Your task to perform on an android device: install app "Spotify: Music and Podcasts" Image 0: 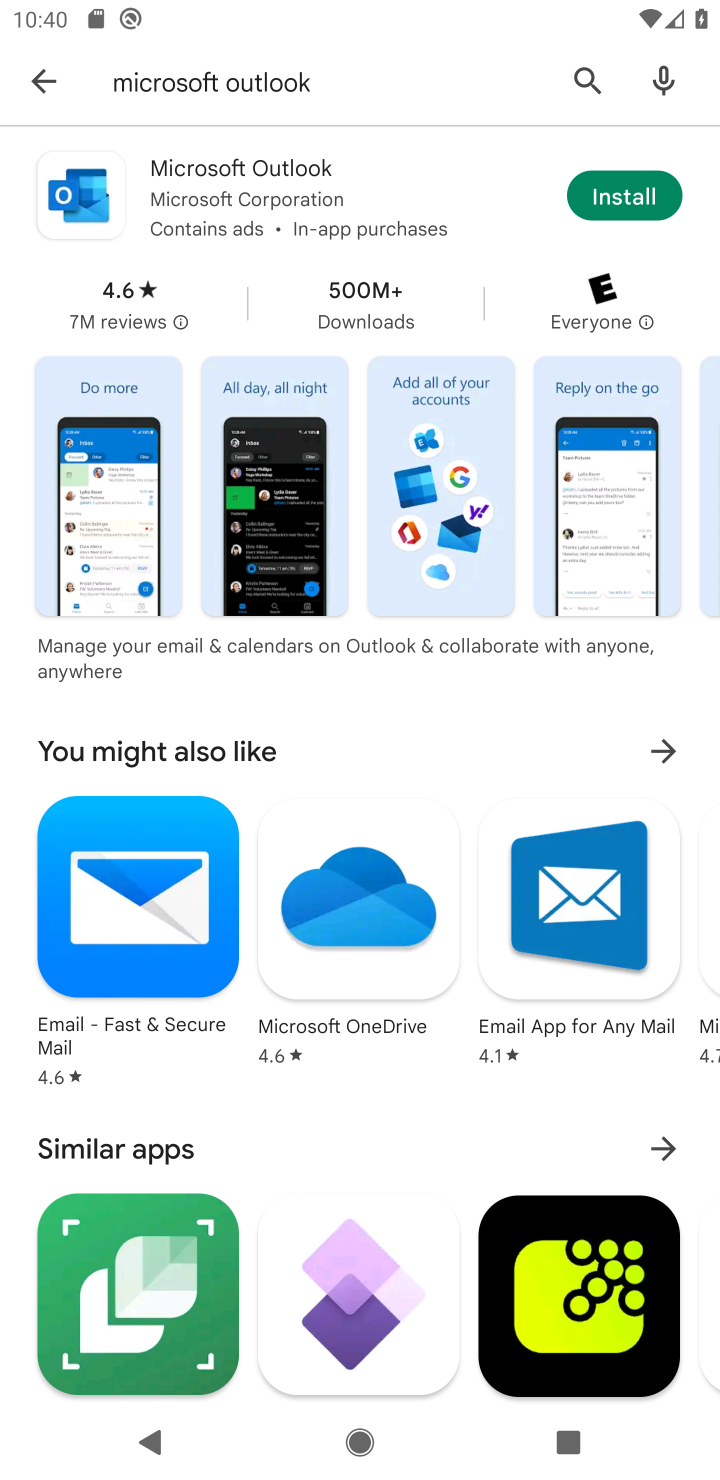
Step 0: press home button
Your task to perform on an android device: install app "Spotify: Music and Podcasts" Image 1: 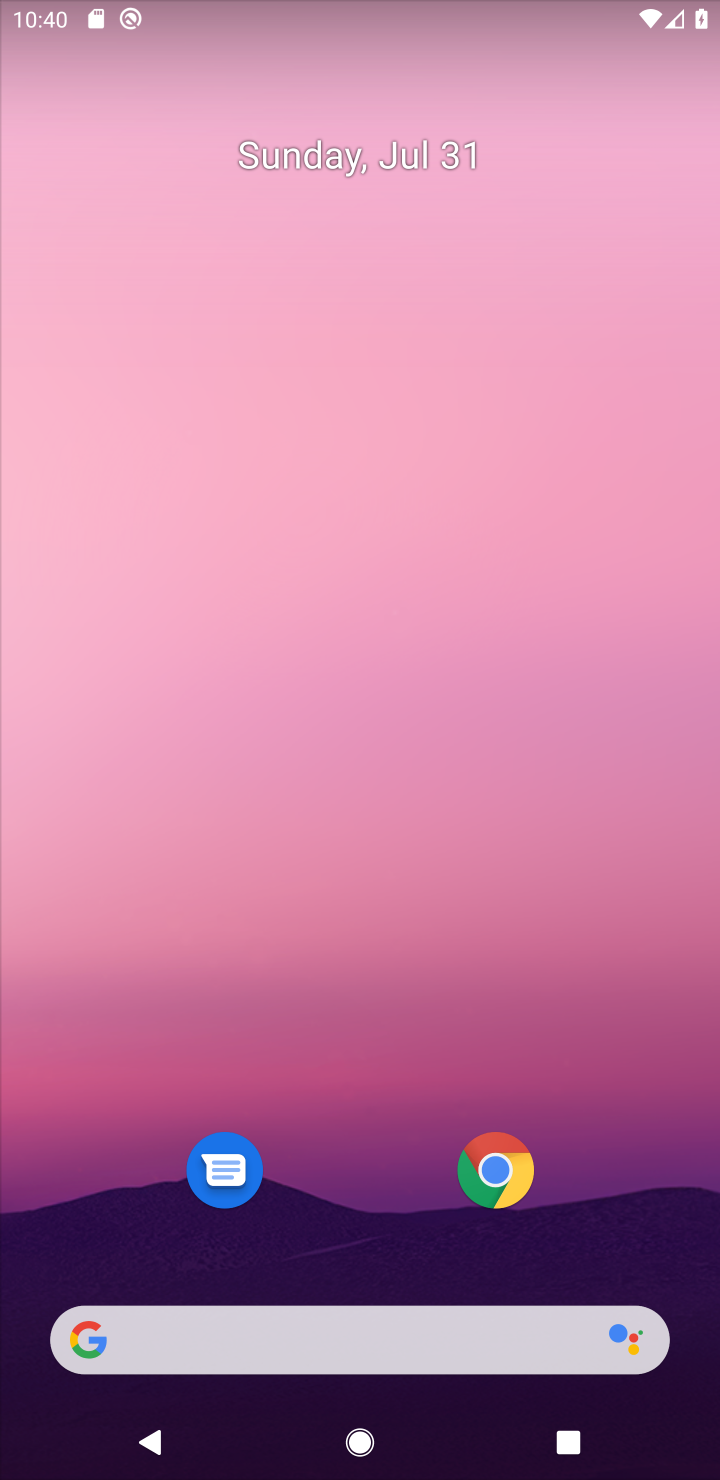
Step 1: drag from (679, 1224) to (379, 121)
Your task to perform on an android device: install app "Spotify: Music and Podcasts" Image 2: 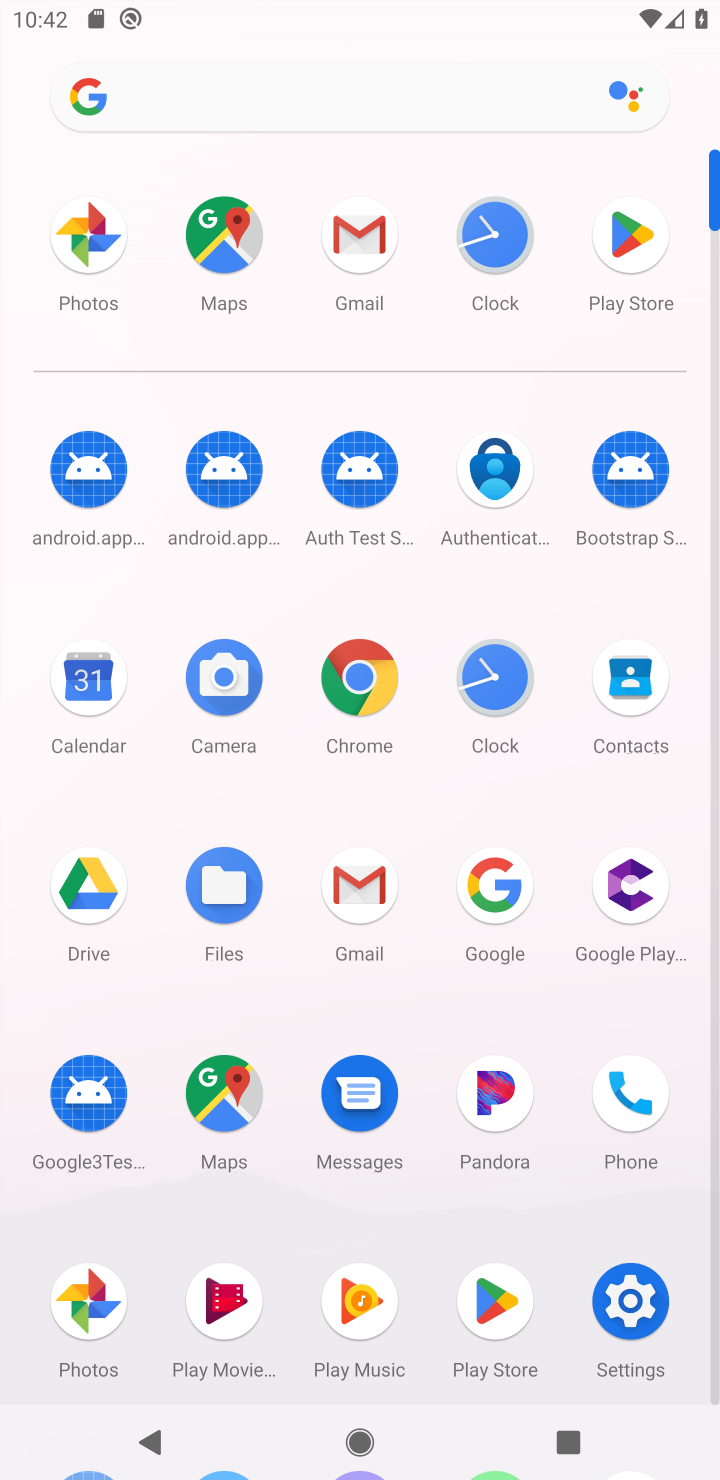
Step 2: click (623, 262)
Your task to perform on an android device: install app "Spotify: Music and Podcasts" Image 3: 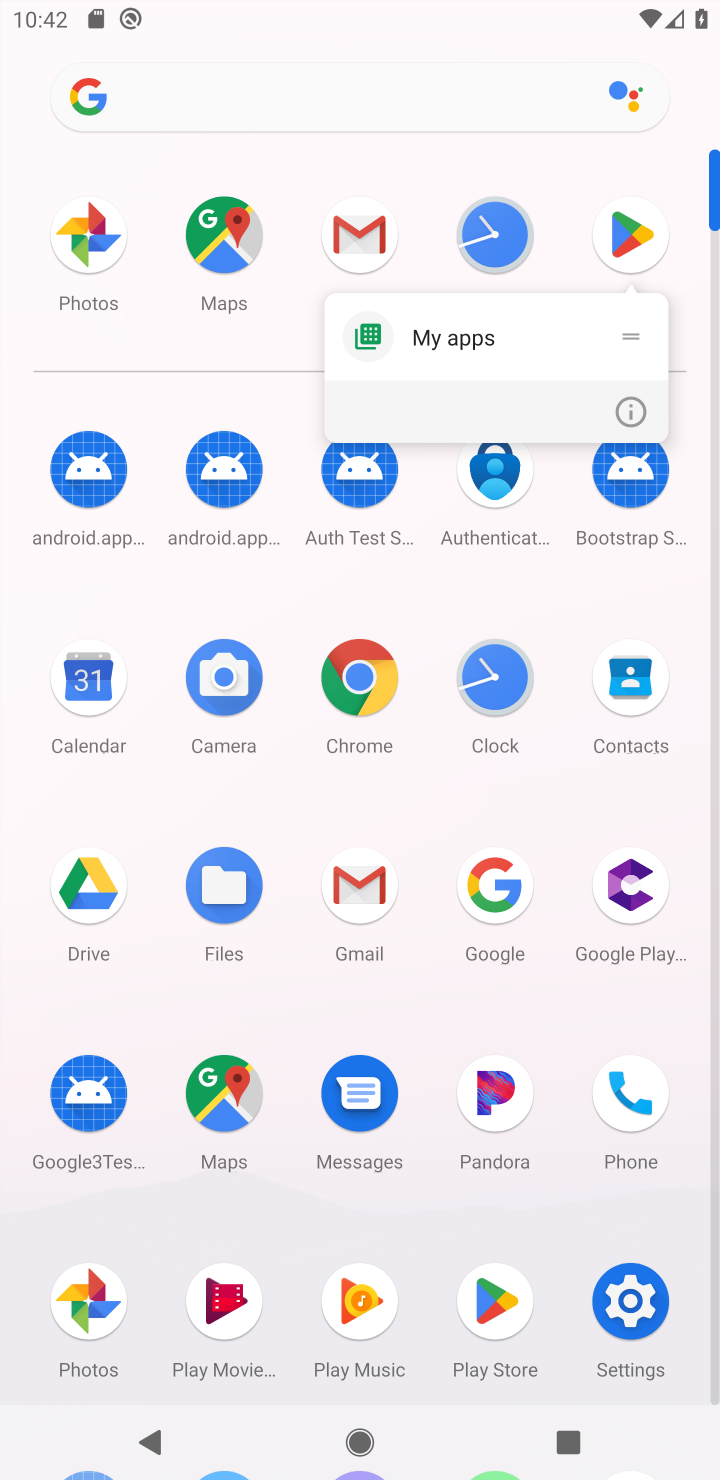
Step 3: click (623, 262)
Your task to perform on an android device: install app "Spotify: Music and Podcasts" Image 4: 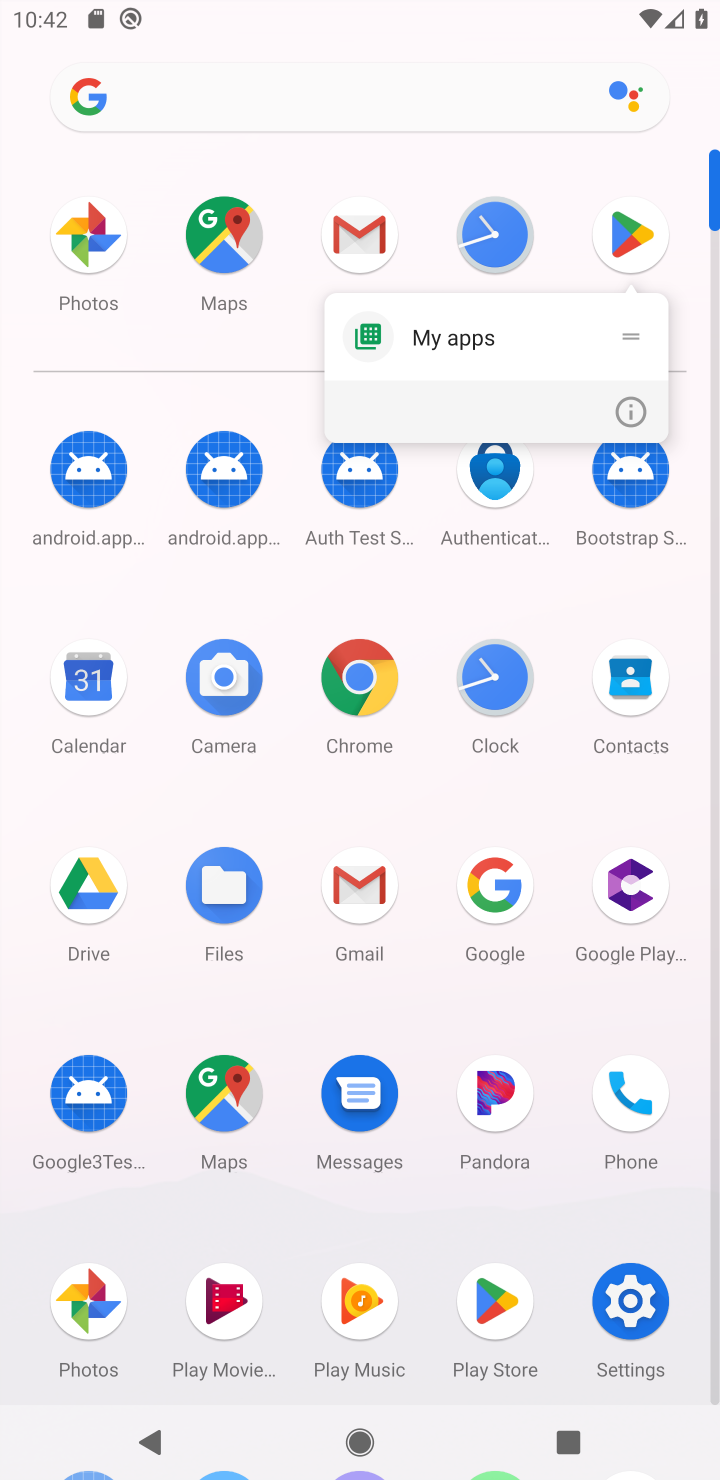
Step 4: click (623, 262)
Your task to perform on an android device: install app "Spotify: Music and Podcasts" Image 5: 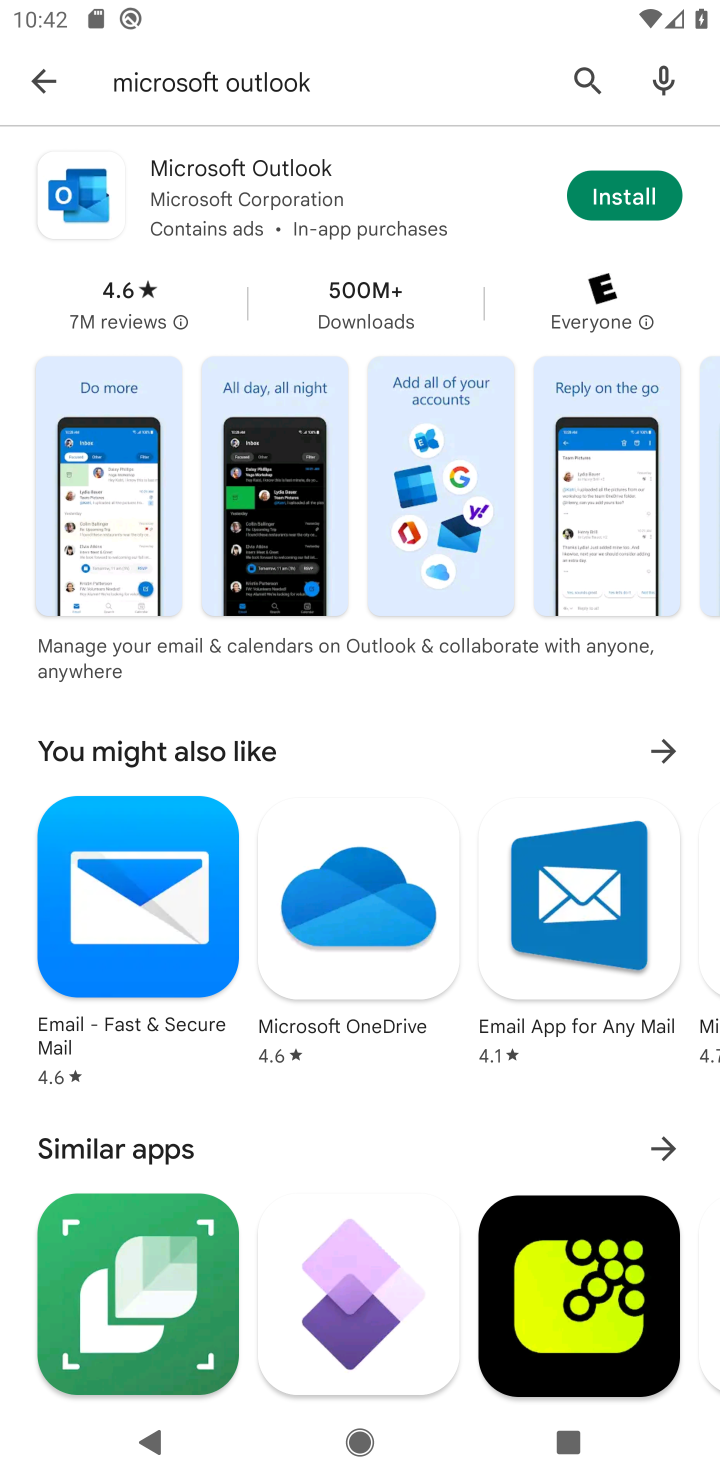
Step 5: press back button
Your task to perform on an android device: install app "Spotify: Music and Podcasts" Image 6: 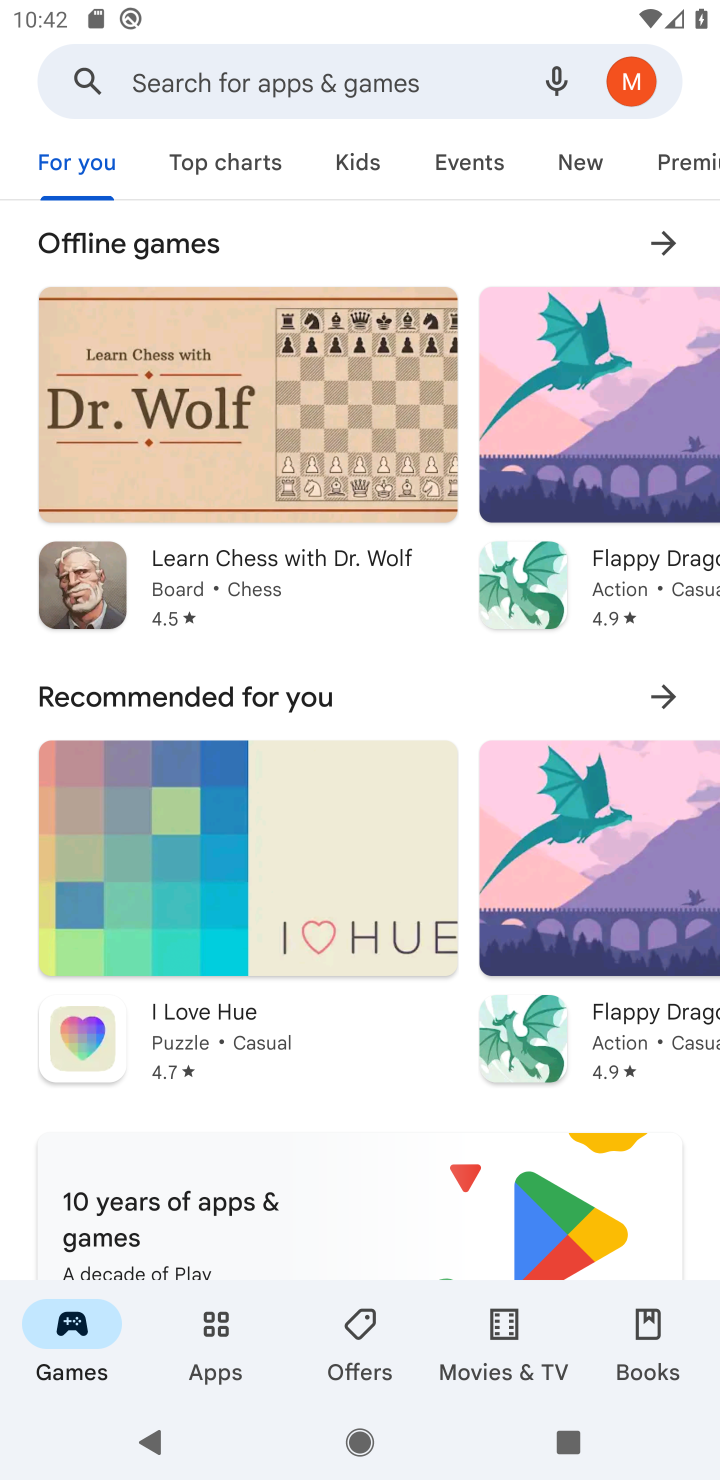
Step 6: click (186, 91)
Your task to perform on an android device: install app "Spotify: Music and Podcasts" Image 7: 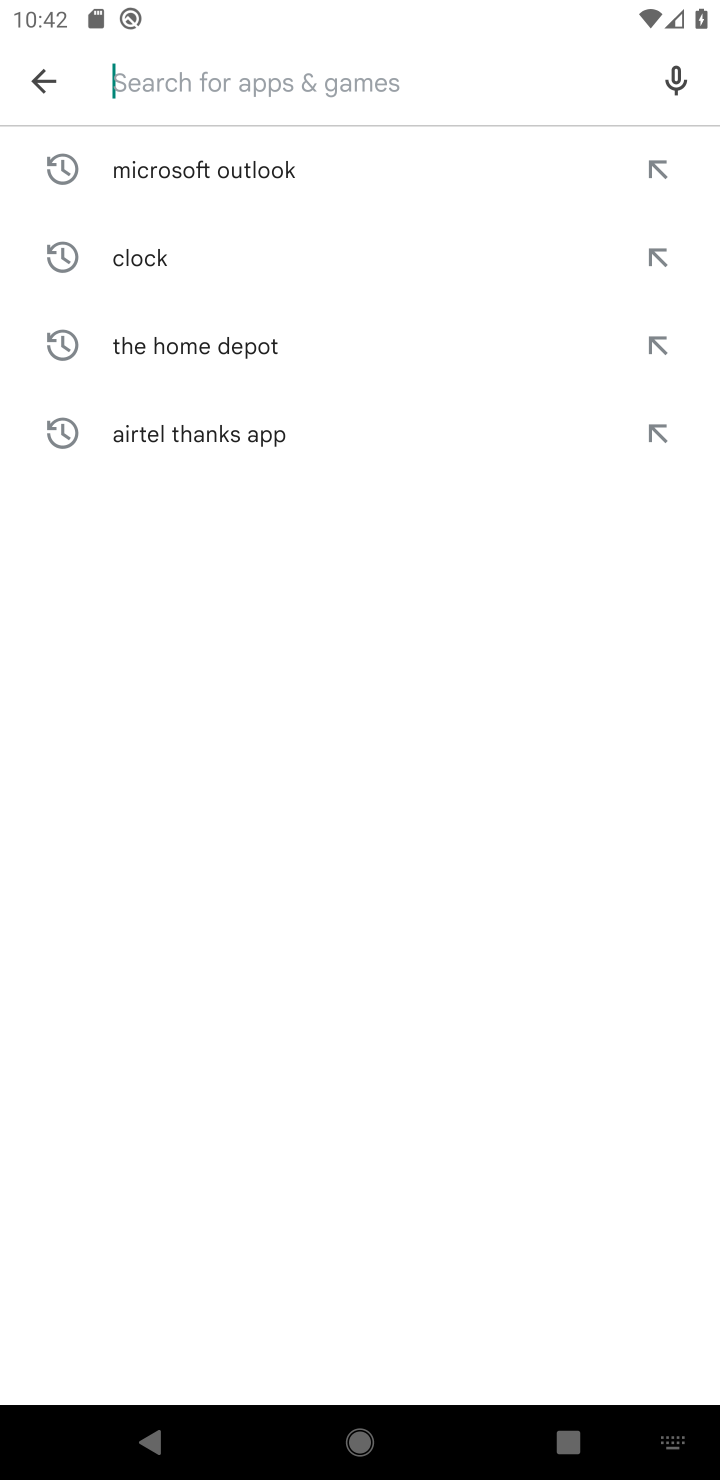
Step 7: type "Spotify: Music and Podcasts"
Your task to perform on an android device: install app "Spotify: Music and Podcasts" Image 8: 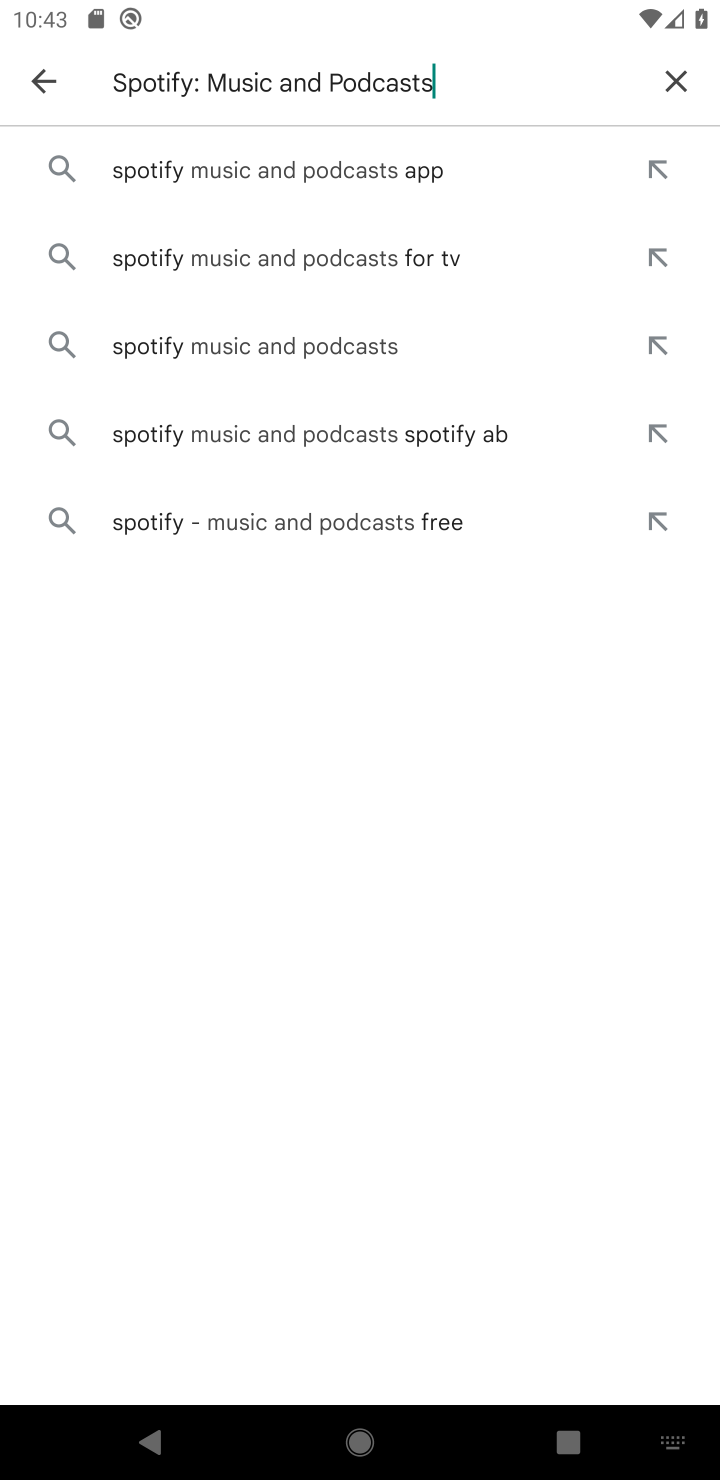
Step 8: click (213, 171)
Your task to perform on an android device: install app "Spotify: Music and Podcasts" Image 9: 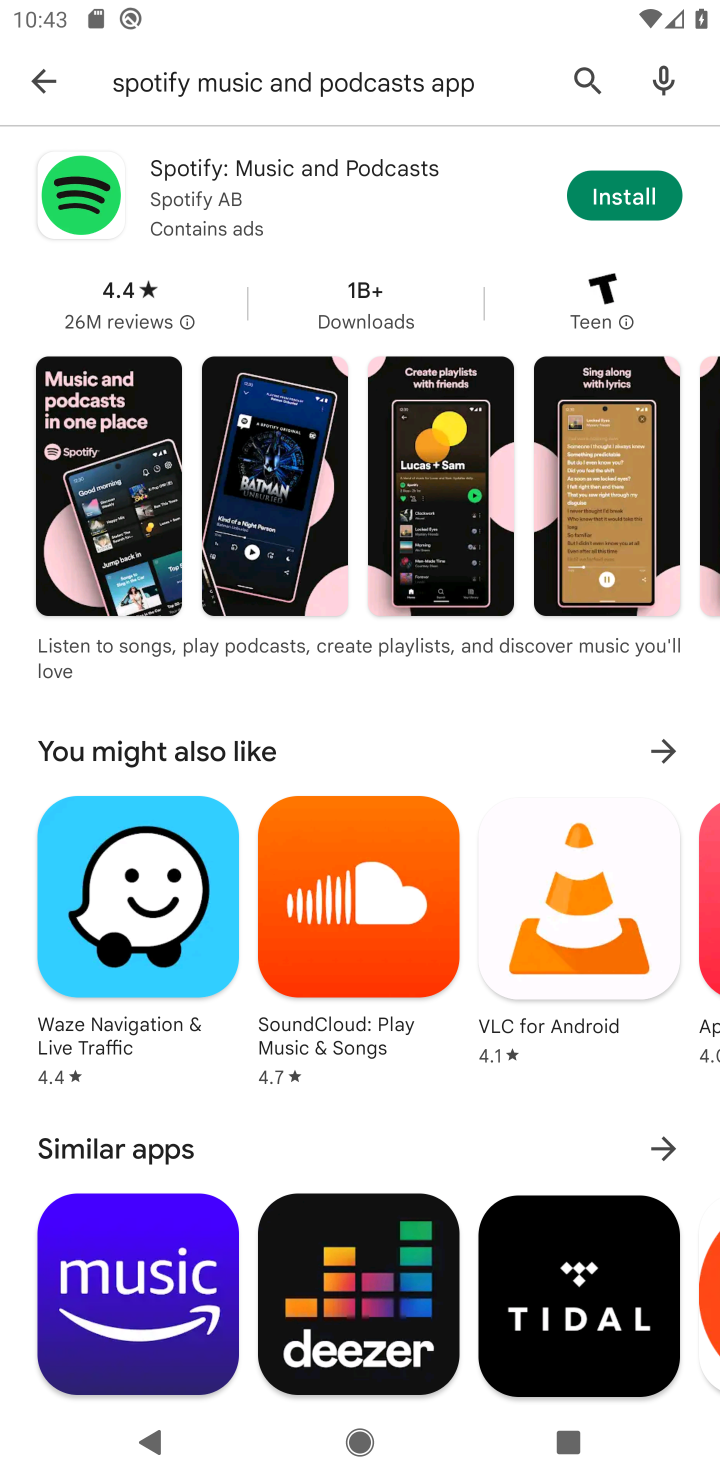
Step 9: click (603, 195)
Your task to perform on an android device: install app "Spotify: Music and Podcasts" Image 10: 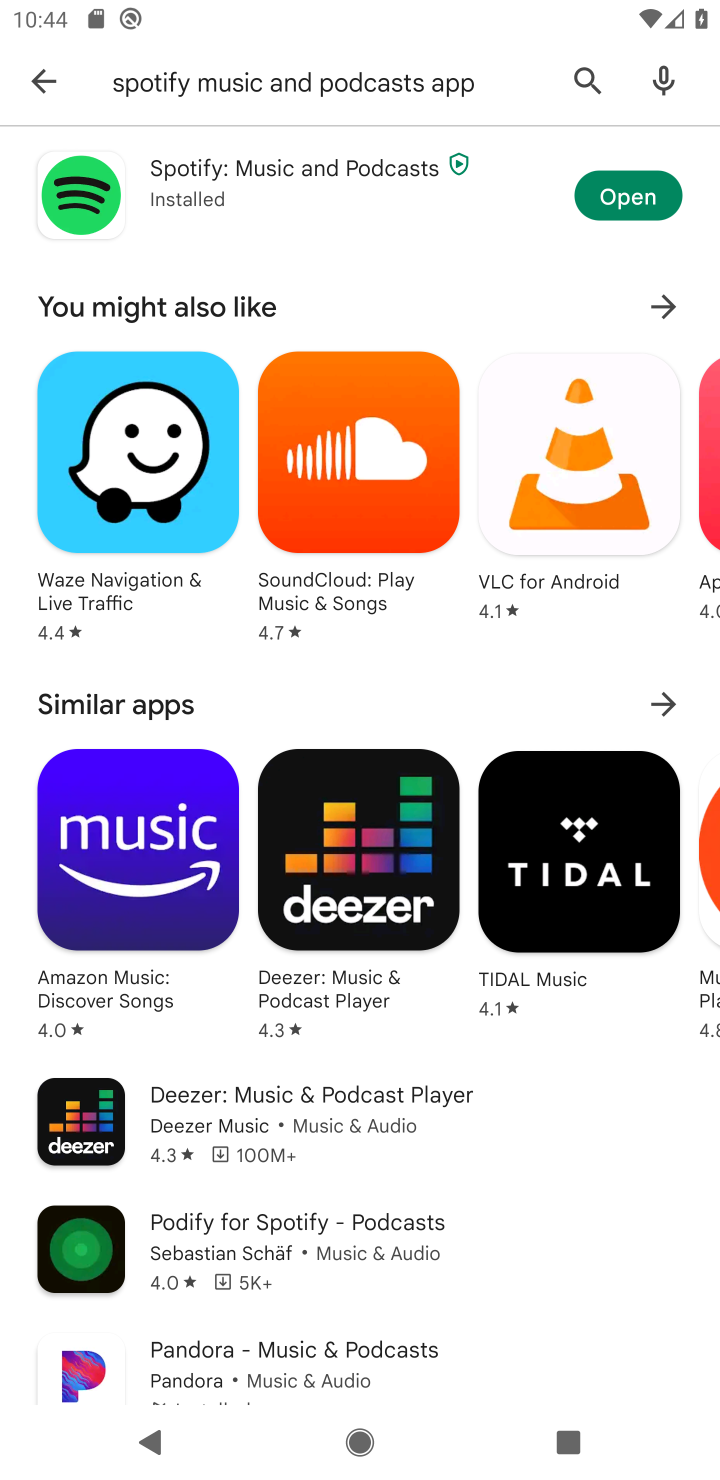
Step 10: task complete